Your task to perform on an android device: move a message to another label in the gmail app Image 0: 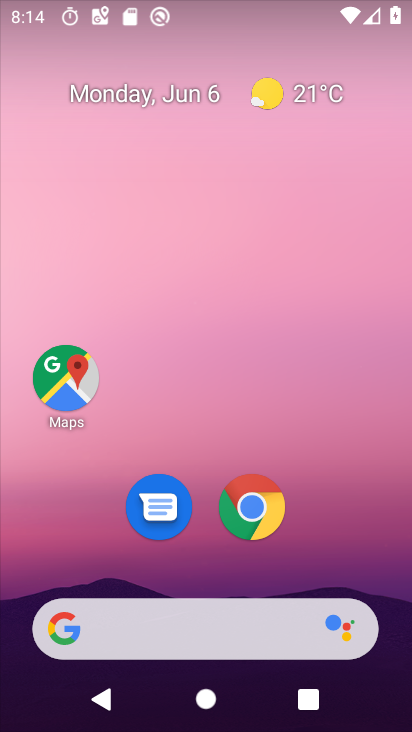
Step 0: press home button
Your task to perform on an android device: move a message to another label in the gmail app Image 1: 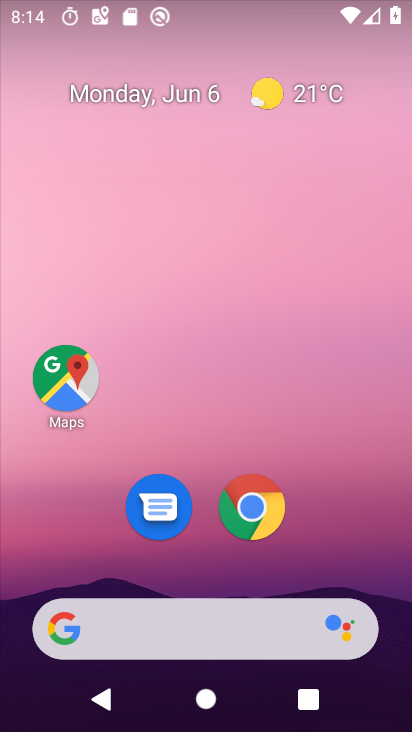
Step 1: drag from (338, 542) to (380, 18)
Your task to perform on an android device: move a message to another label in the gmail app Image 2: 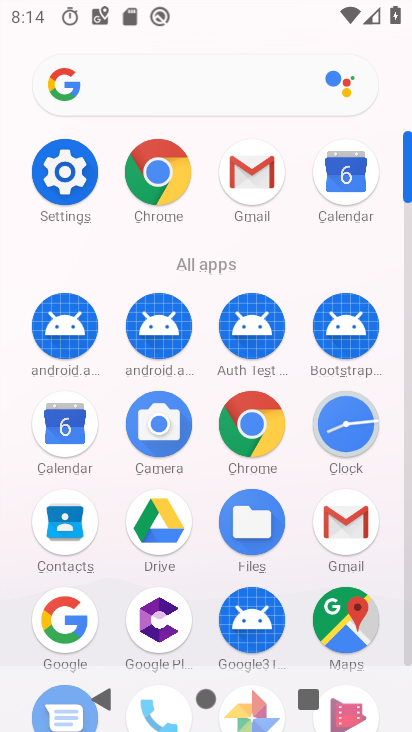
Step 2: click (246, 181)
Your task to perform on an android device: move a message to another label in the gmail app Image 3: 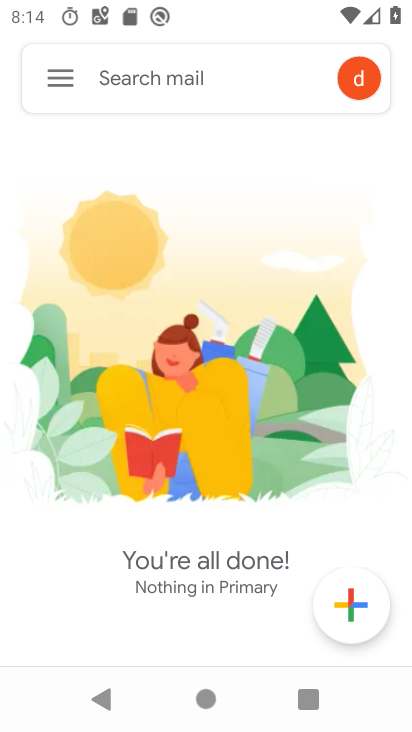
Step 3: task complete